Your task to perform on an android device: Go to accessibility settings Image 0: 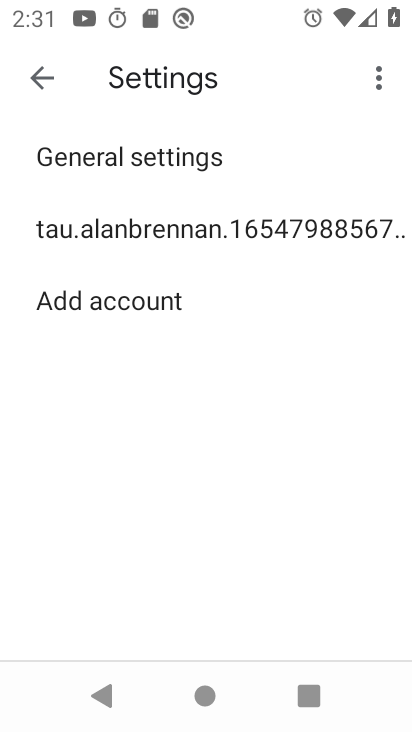
Step 0: press home button
Your task to perform on an android device: Go to accessibility settings Image 1: 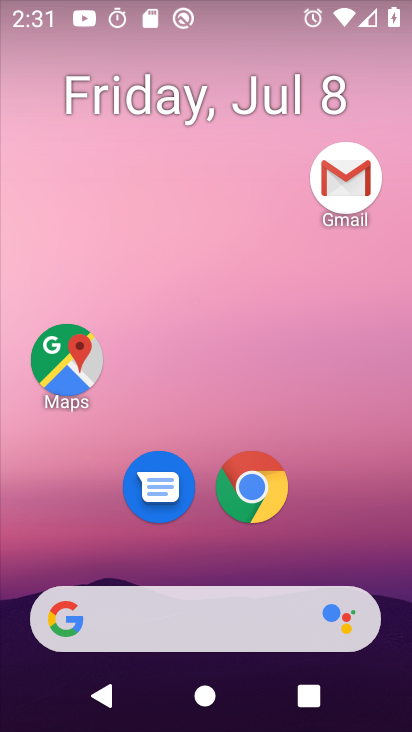
Step 1: drag from (355, 543) to (346, 198)
Your task to perform on an android device: Go to accessibility settings Image 2: 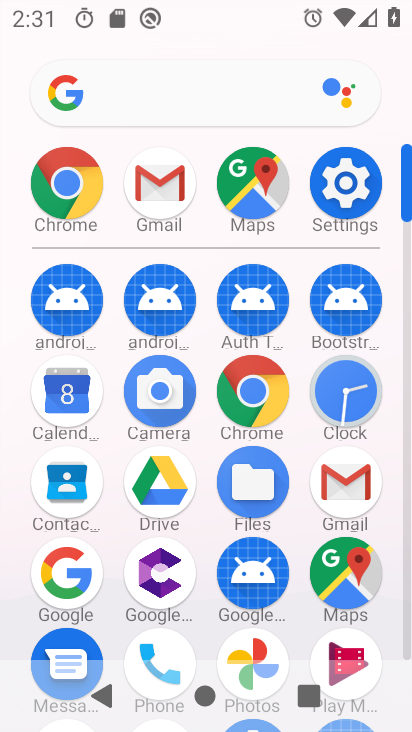
Step 2: click (358, 210)
Your task to perform on an android device: Go to accessibility settings Image 3: 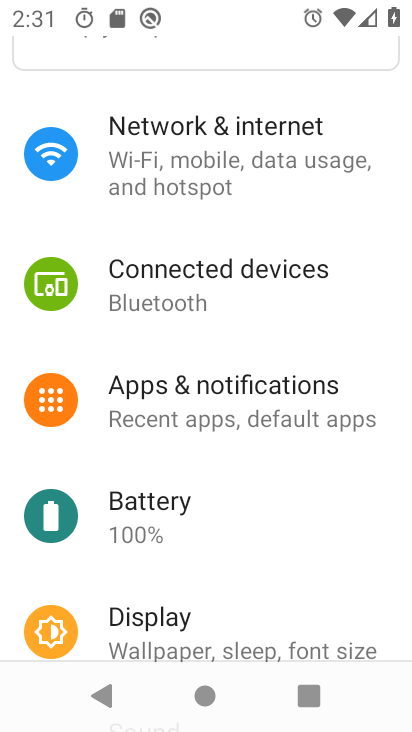
Step 3: drag from (377, 510) to (376, 345)
Your task to perform on an android device: Go to accessibility settings Image 4: 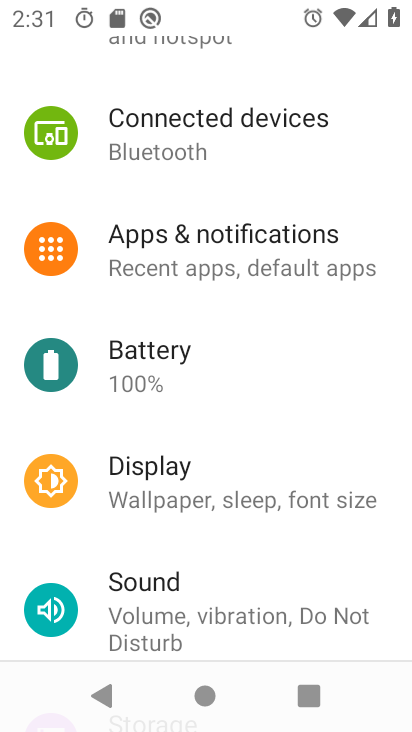
Step 4: drag from (369, 564) to (367, 410)
Your task to perform on an android device: Go to accessibility settings Image 5: 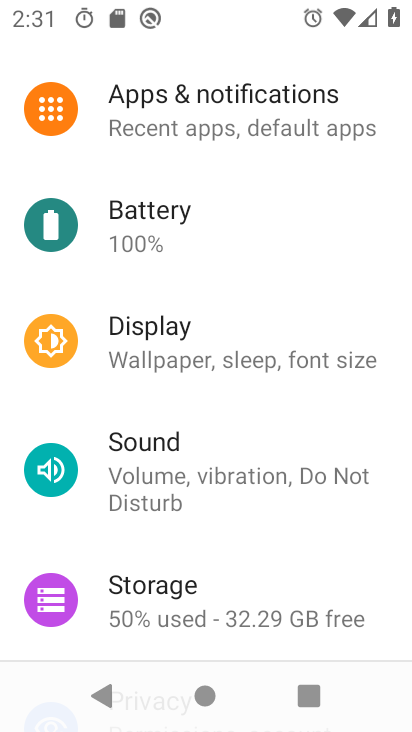
Step 5: drag from (363, 521) to (364, 388)
Your task to perform on an android device: Go to accessibility settings Image 6: 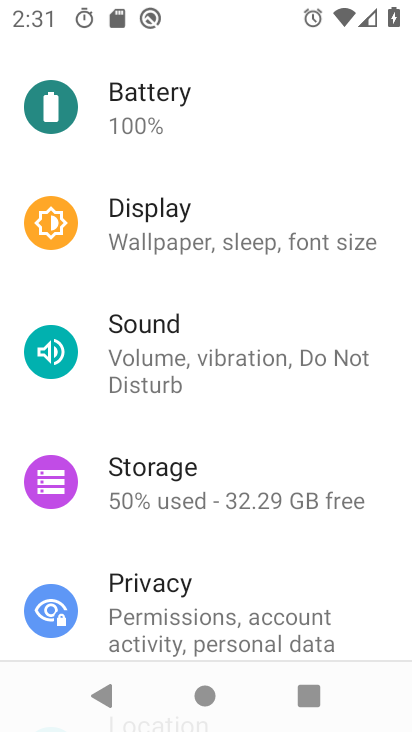
Step 6: drag from (367, 546) to (351, 391)
Your task to perform on an android device: Go to accessibility settings Image 7: 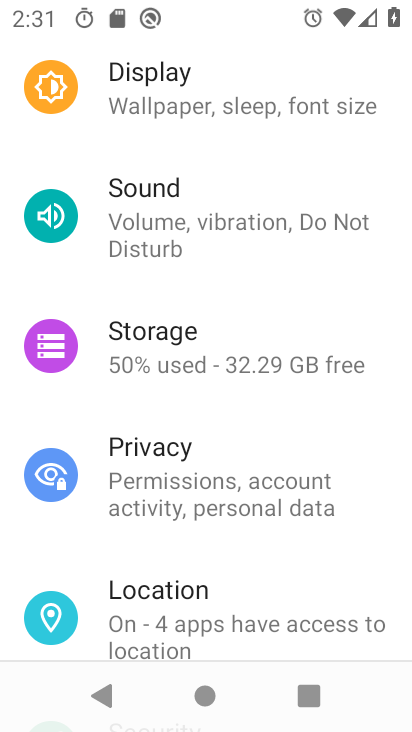
Step 7: drag from (372, 551) to (362, 433)
Your task to perform on an android device: Go to accessibility settings Image 8: 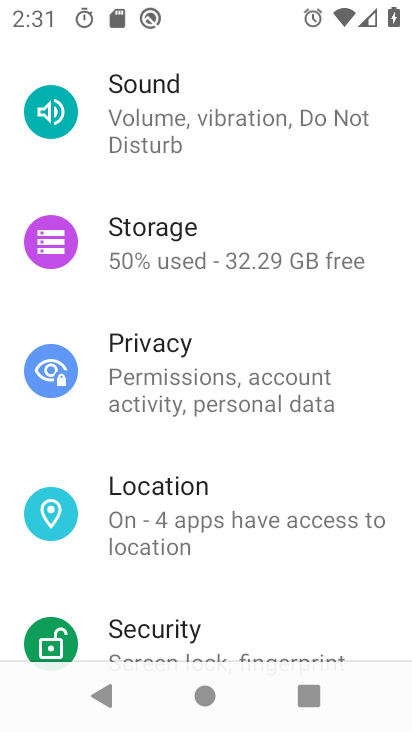
Step 8: drag from (361, 577) to (356, 456)
Your task to perform on an android device: Go to accessibility settings Image 9: 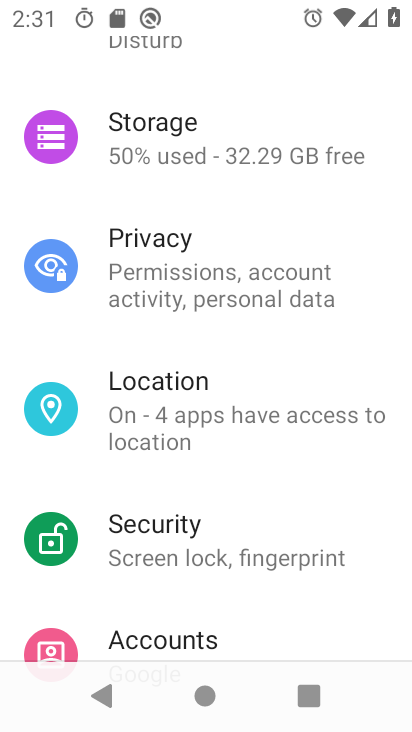
Step 9: drag from (366, 605) to (365, 464)
Your task to perform on an android device: Go to accessibility settings Image 10: 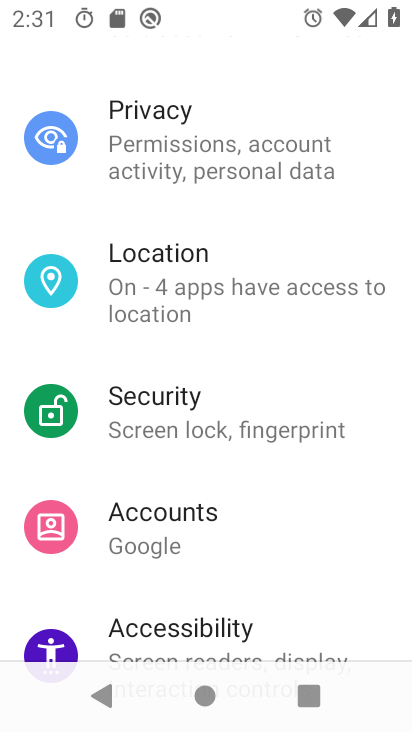
Step 10: drag from (331, 564) to (324, 391)
Your task to perform on an android device: Go to accessibility settings Image 11: 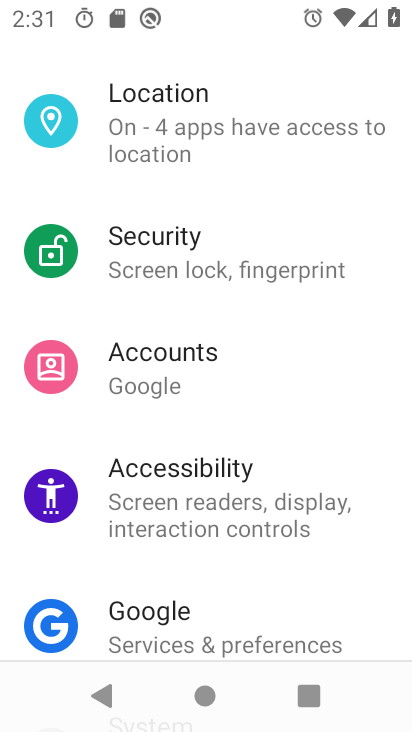
Step 11: click (274, 489)
Your task to perform on an android device: Go to accessibility settings Image 12: 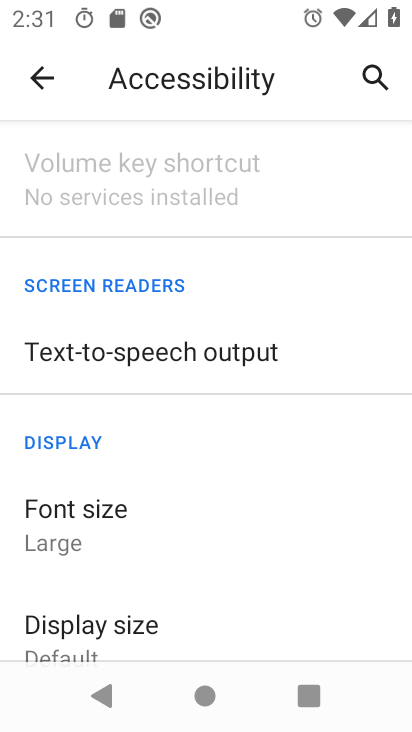
Step 12: task complete